Your task to perform on an android device: Show me recent news Image 0: 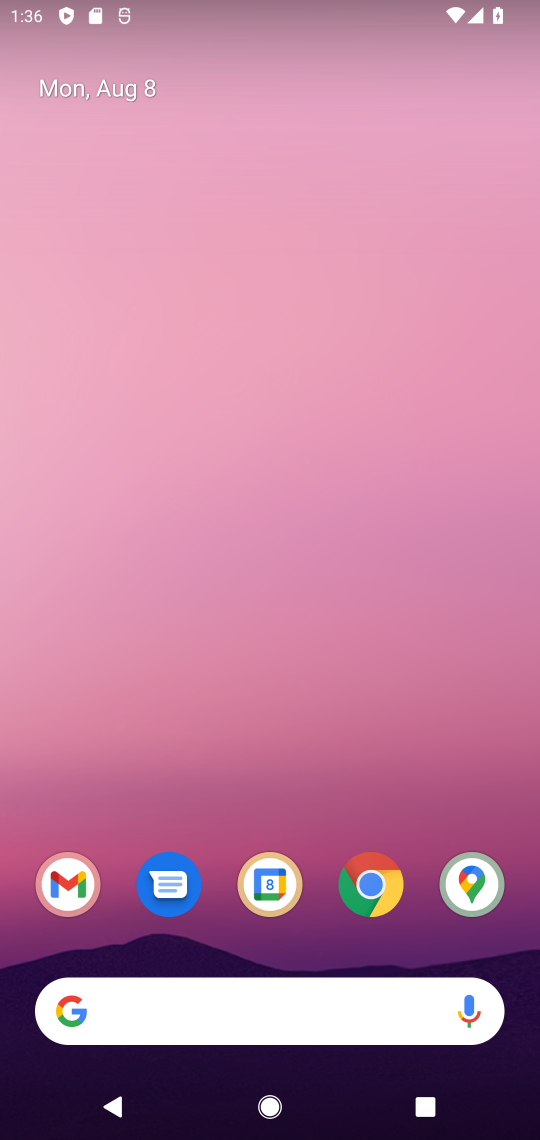
Step 0: drag from (38, 519) to (522, 547)
Your task to perform on an android device: Show me recent news Image 1: 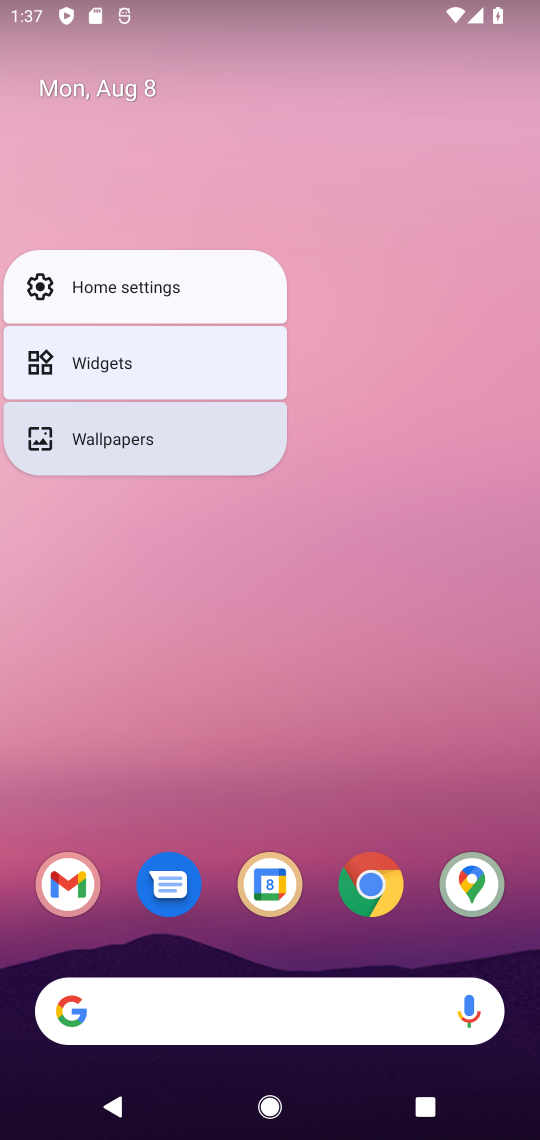
Step 1: click (369, 522)
Your task to perform on an android device: Show me recent news Image 2: 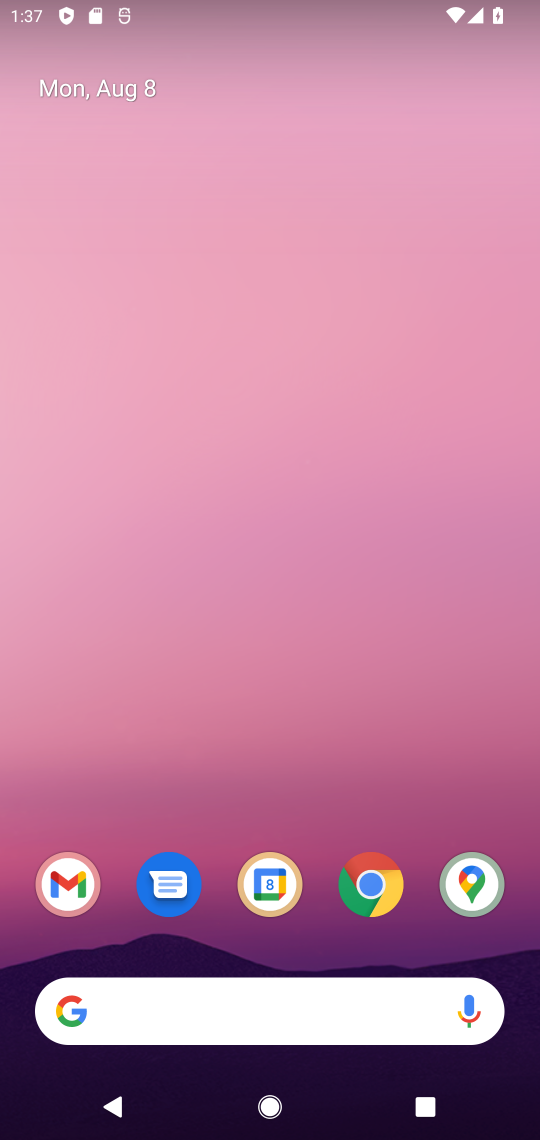
Step 2: click (104, 1022)
Your task to perform on an android device: Show me recent news Image 3: 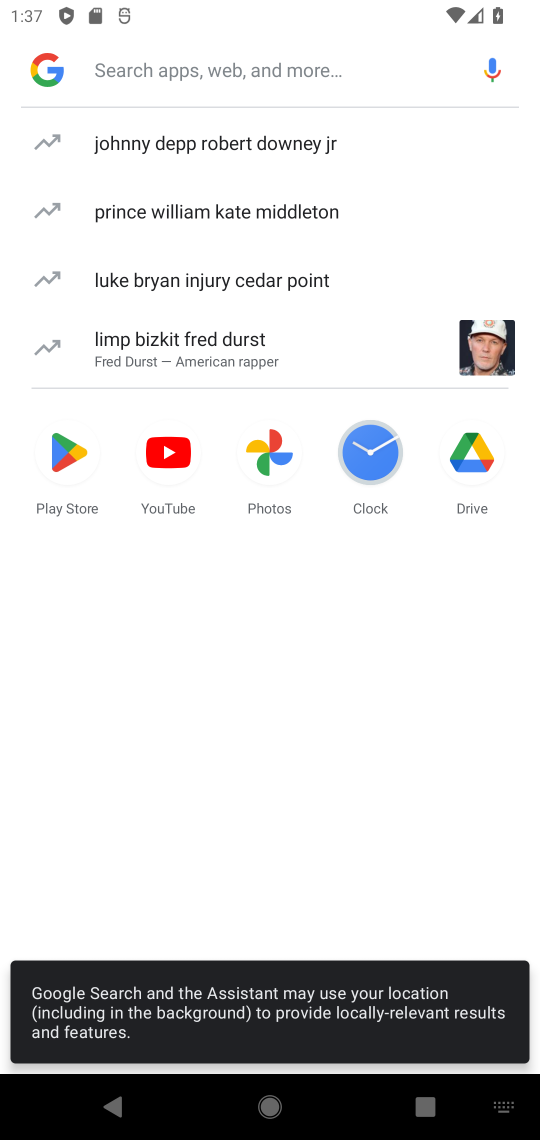
Step 3: click (40, 72)
Your task to perform on an android device: Show me recent news Image 4: 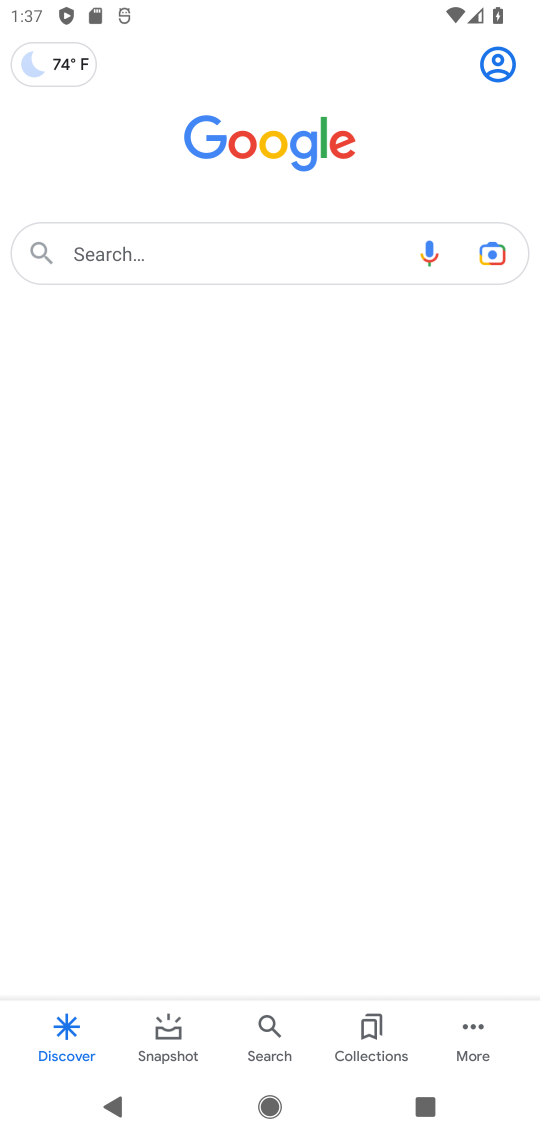
Step 4: click (194, 240)
Your task to perform on an android device: Show me recent news Image 5: 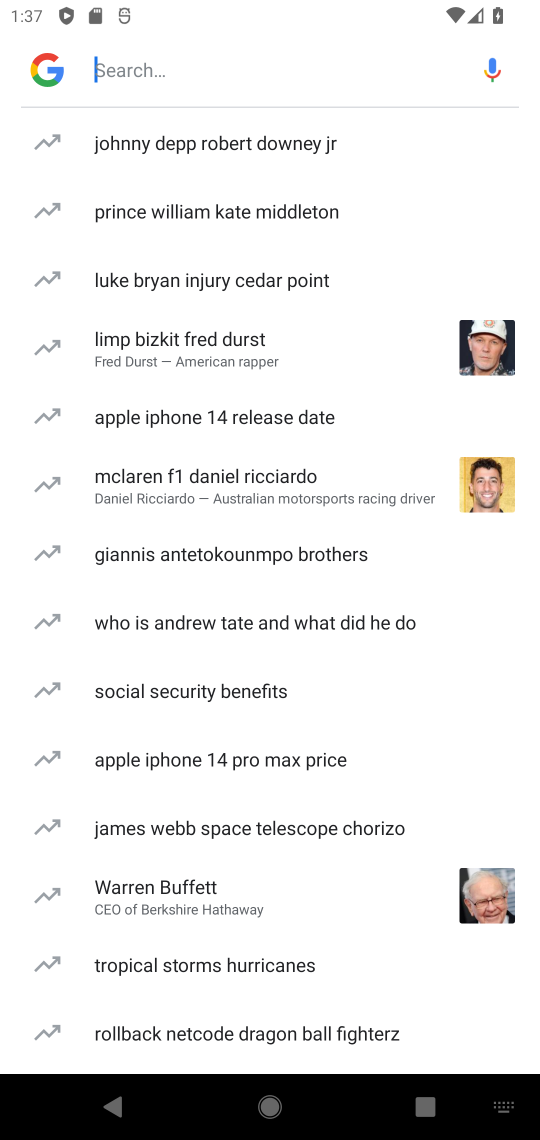
Step 5: type "recent news"
Your task to perform on an android device: Show me recent news Image 6: 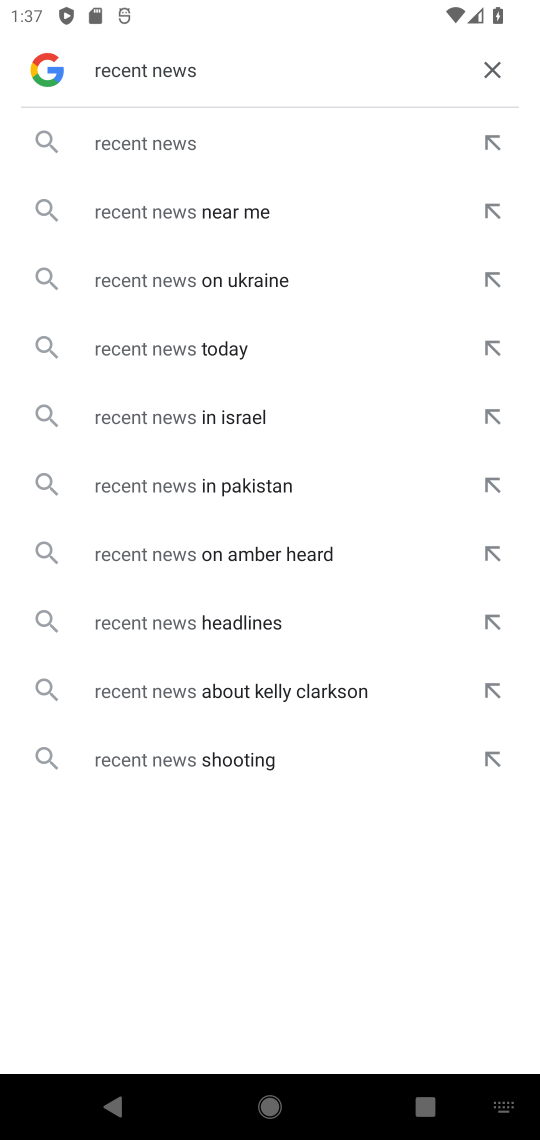
Step 6: click (169, 143)
Your task to perform on an android device: Show me recent news Image 7: 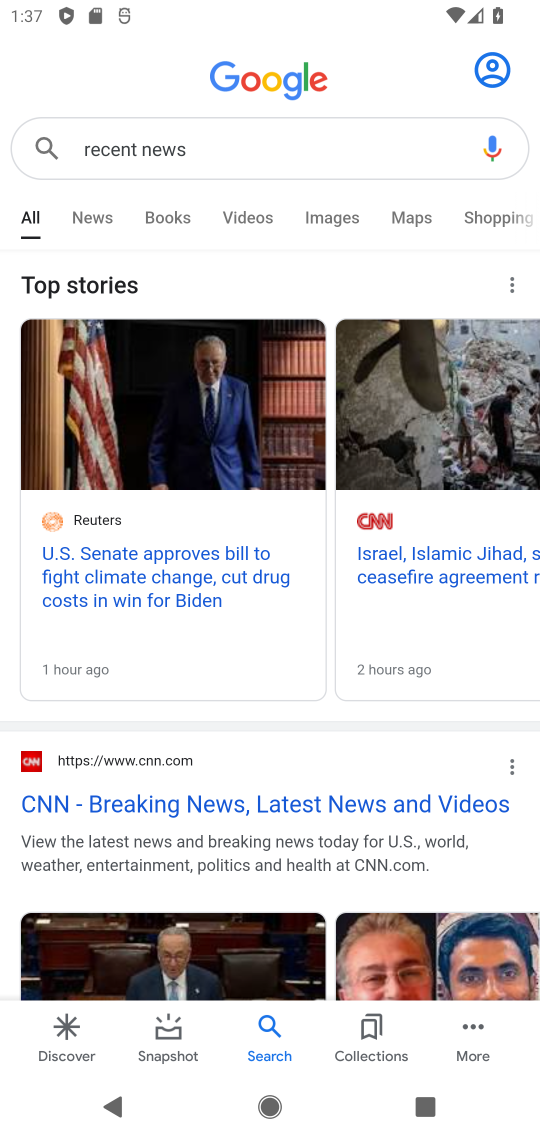
Step 7: click (253, 802)
Your task to perform on an android device: Show me recent news Image 8: 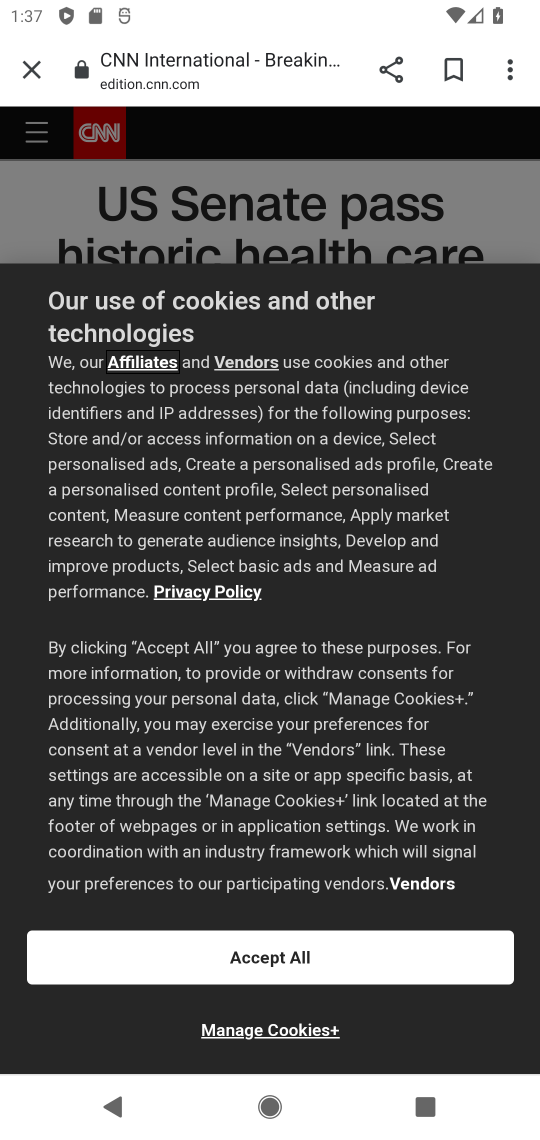
Step 8: click (310, 958)
Your task to perform on an android device: Show me recent news Image 9: 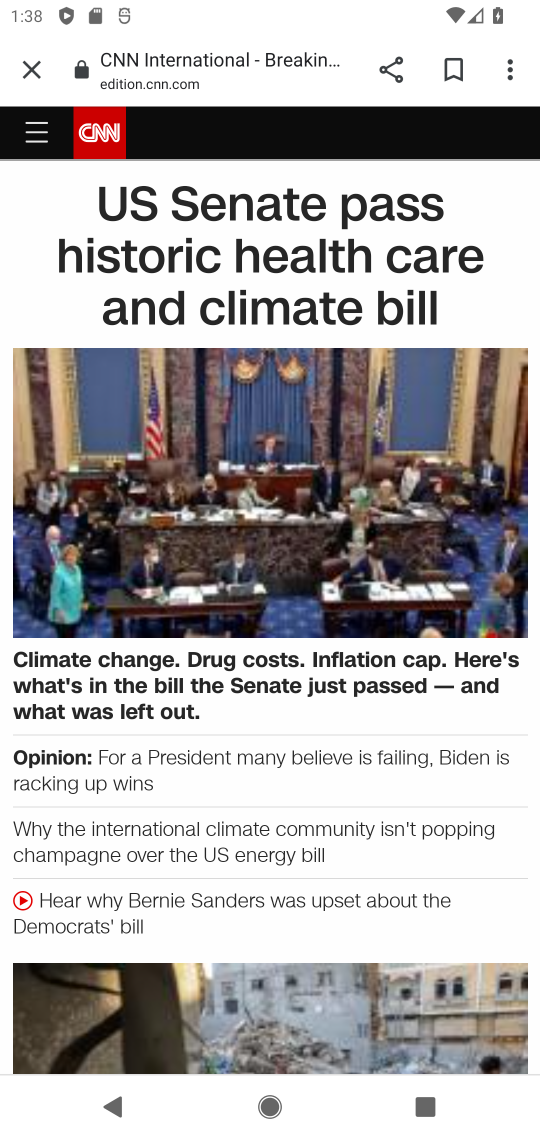
Step 9: task complete